Your task to perform on an android device: Go to wifi settings Image 0: 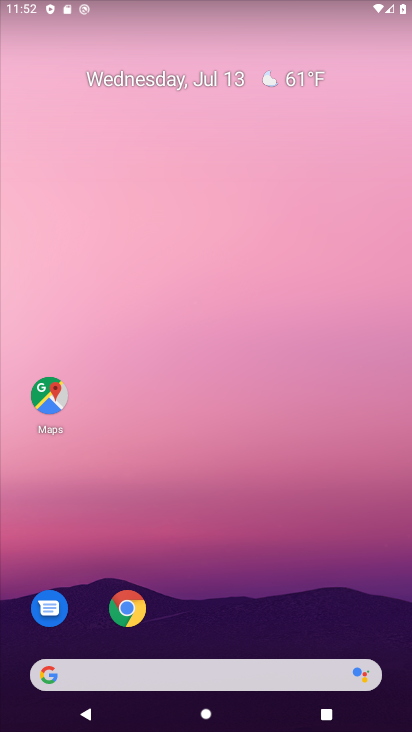
Step 0: drag from (198, 626) to (203, 232)
Your task to perform on an android device: Go to wifi settings Image 1: 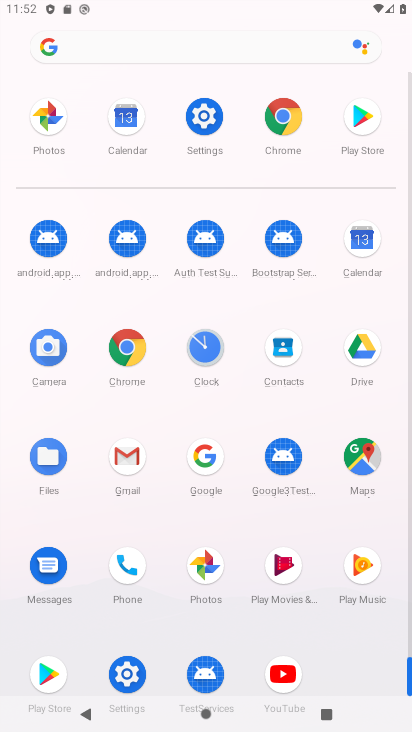
Step 1: click (118, 666)
Your task to perform on an android device: Go to wifi settings Image 2: 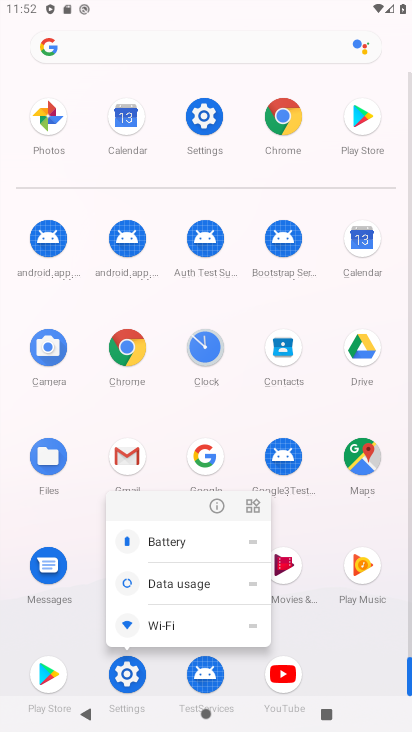
Step 2: click (226, 507)
Your task to perform on an android device: Go to wifi settings Image 3: 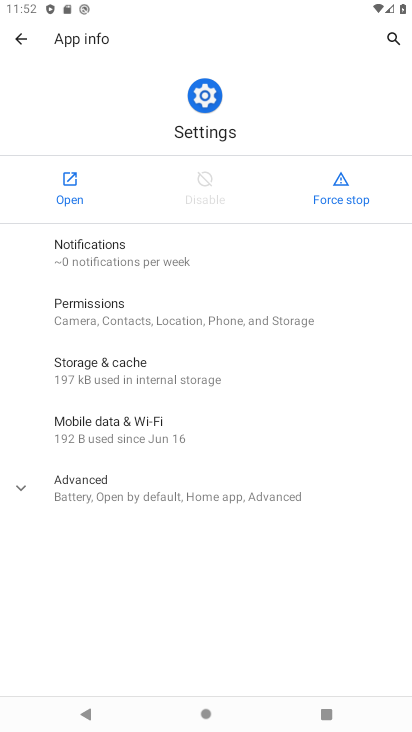
Step 3: click (73, 184)
Your task to perform on an android device: Go to wifi settings Image 4: 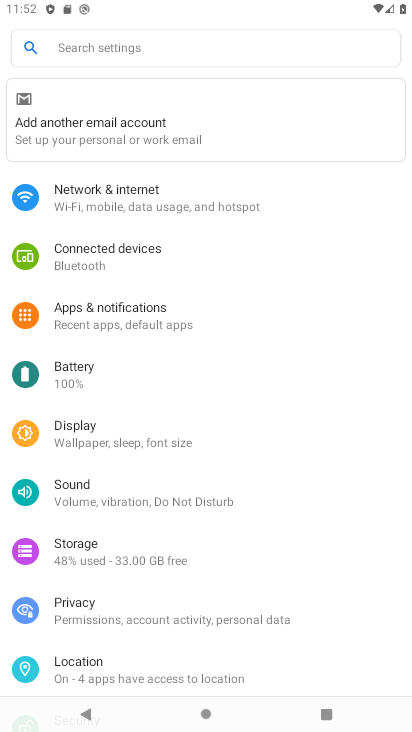
Step 4: click (133, 210)
Your task to perform on an android device: Go to wifi settings Image 5: 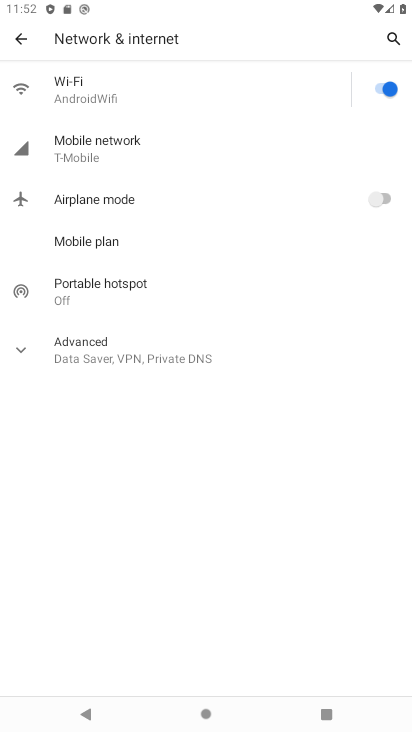
Step 5: click (153, 89)
Your task to perform on an android device: Go to wifi settings Image 6: 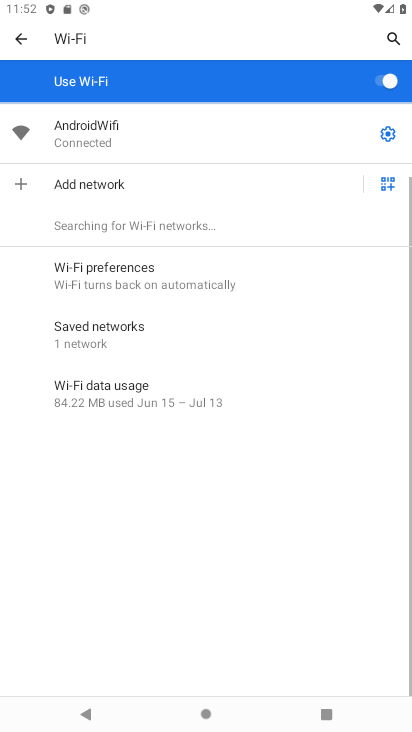
Step 6: click (386, 132)
Your task to perform on an android device: Go to wifi settings Image 7: 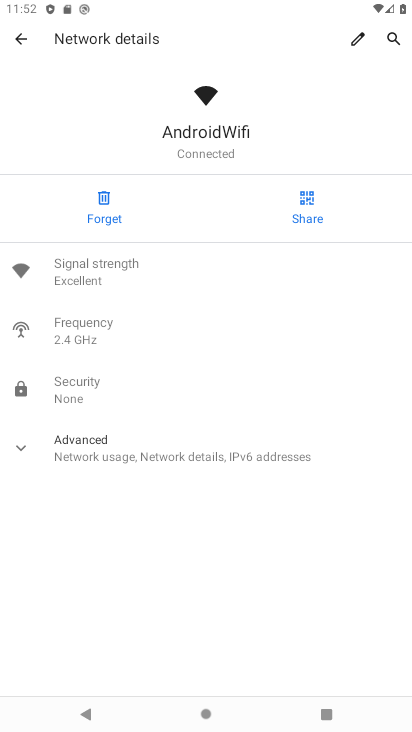
Step 7: task complete